Your task to perform on an android device: turn off location Image 0: 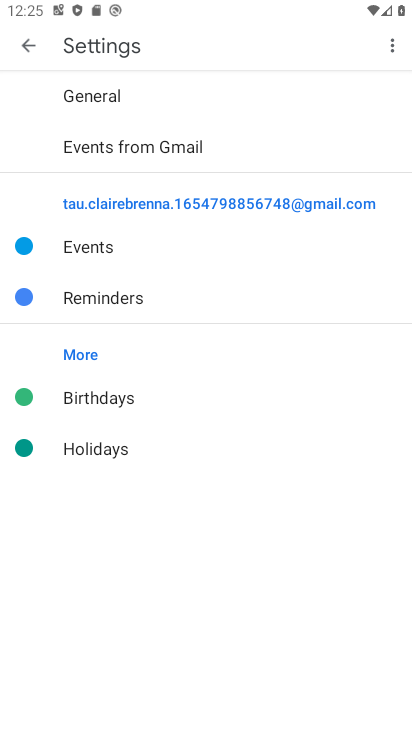
Step 0: press home button
Your task to perform on an android device: turn off location Image 1: 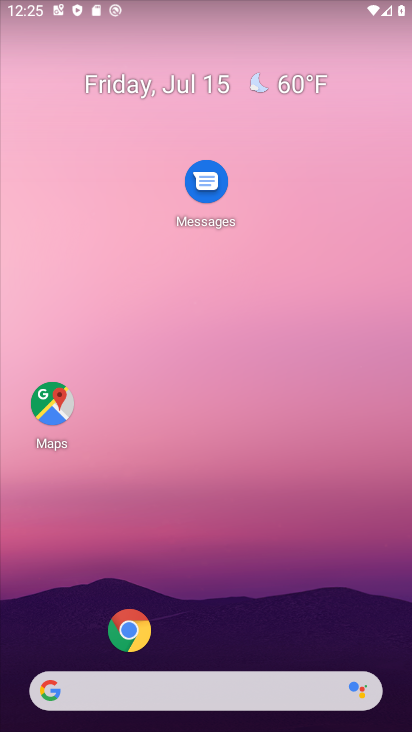
Step 1: drag from (135, 473) to (282, 122)
Your task to perform on an android device: turn off location Image 2: 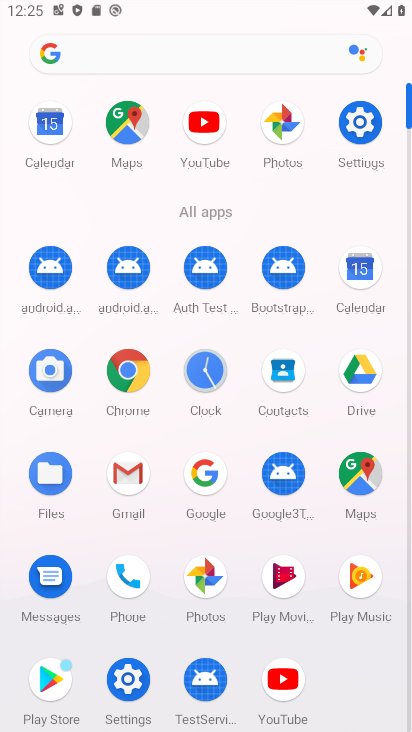
Step 2: click (133, 681)
Your task to perform on an android device: turn off location Image 3: 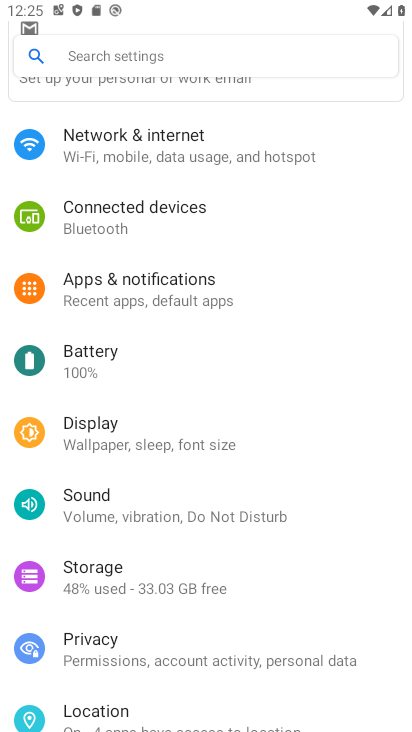
Step 3: click (101, 704)
Your task to perform on an android device: turn off location Image 4: 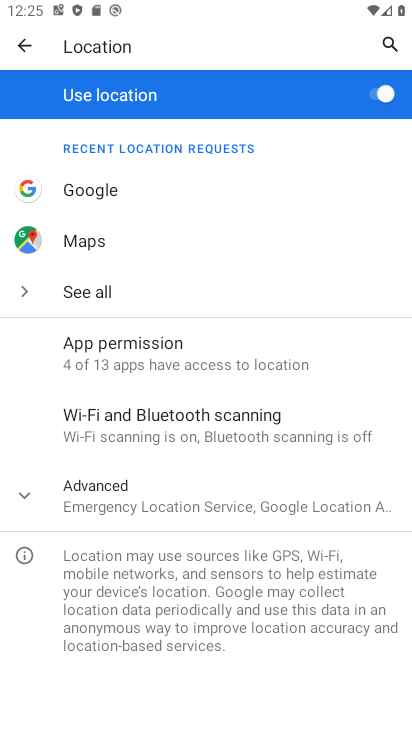
Step 4: click (117, 497)
Your task to perform on an android device: turn off location Image 5: 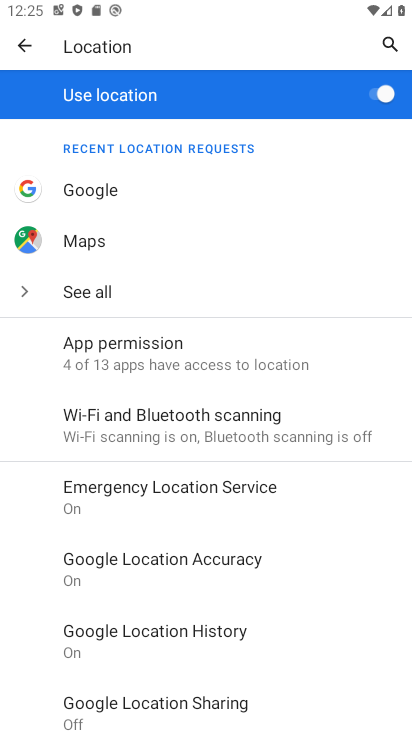
Step 5: task complete